Your task to perform on an android device: turn on priority inbox in the gmail app Image 0: 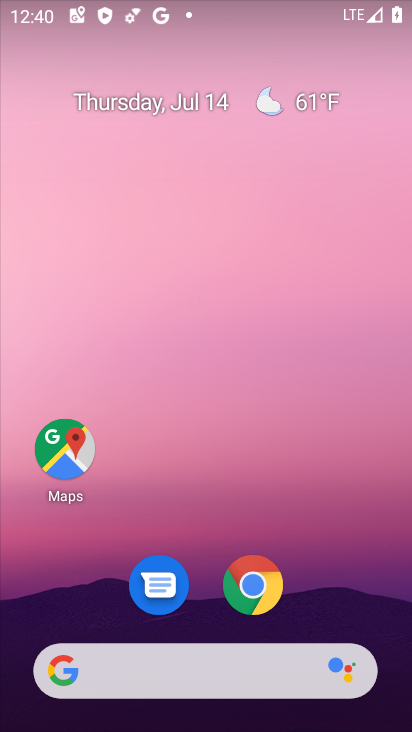
Step 0: drag from (310, 518) to (352, 29)
Your task to perform on an android device: turn on priority inbox in the gmail app Image 1: 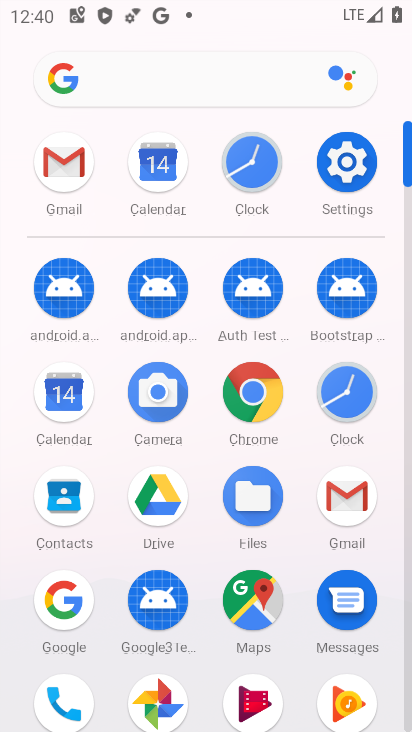
Step 1: click (73, 160)
Your task to perform on an android device: turn on priority inbox in the gmail app Image 2: 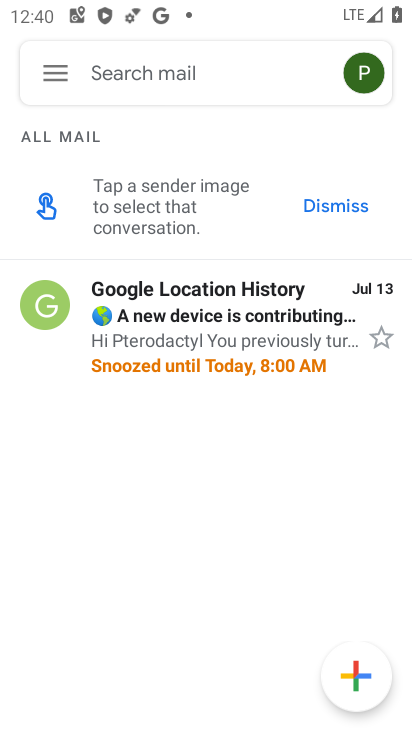
Step 2: click (58, 72)
Your task to perform on an android device: turn on priority inbox in the gmail app Image 3: 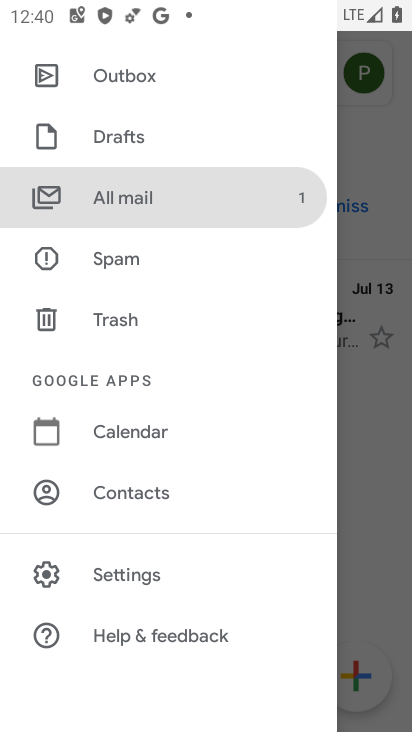
Step 3: click (140, 573)
Your task to perform on an android device: turn on priority inbox in the gmail app Image 4: 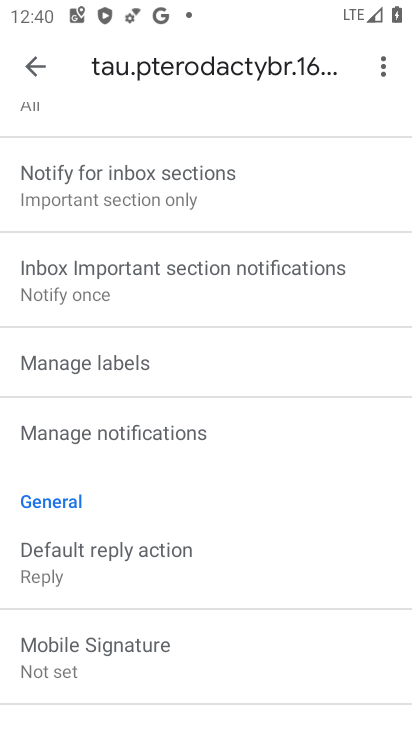
Step 4: drag from (209, 305) to (184, 685)
Your task to perform on an android device: turn on priority inbox in the gmail app Image 5: 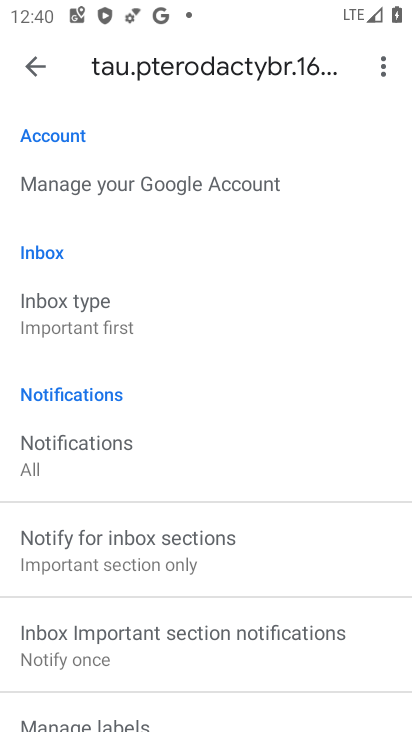
Step 5: drag from (195, 279) to (180, 547)
Your task to perform on an android device: turn on priority inbox in the gmail app Image 6: 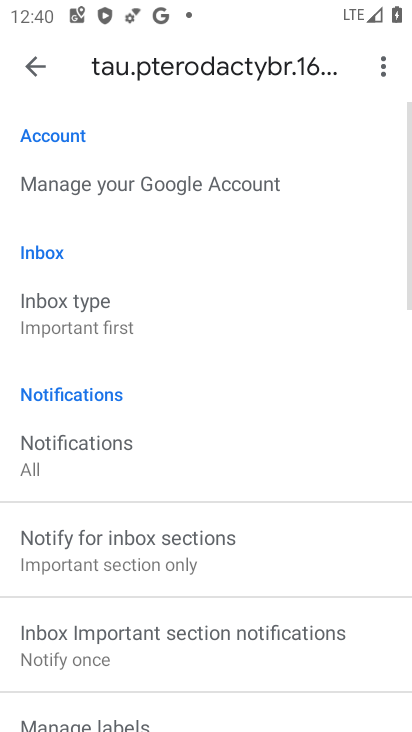
Step 6: click (106, 309)
Your task to perform on an android device: turn on priority inbox in the gmail app Image 7: 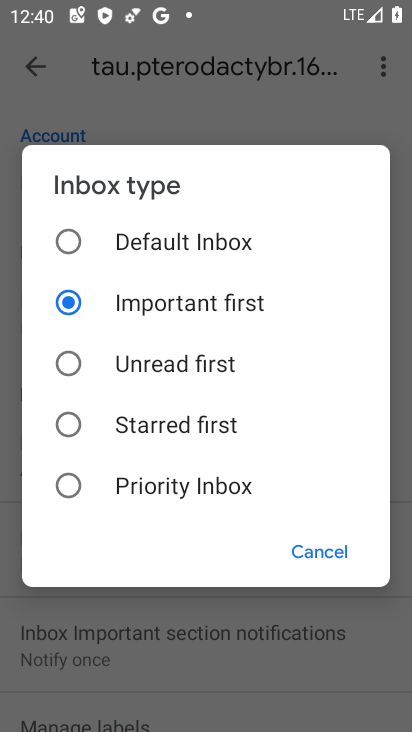
Step 7: click (66, 484)
Your task to perform on an android device: turn on priority inbox in the gmail app Image 8: 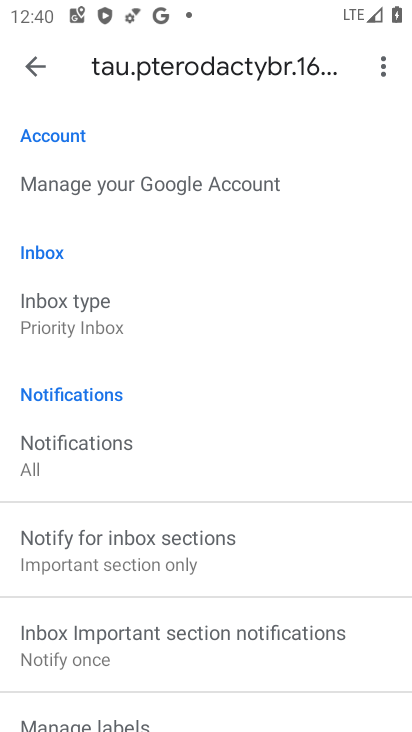
Step 8: task complete